Your task to perform on an android device: turn pop-ups on in chrome Image 0: 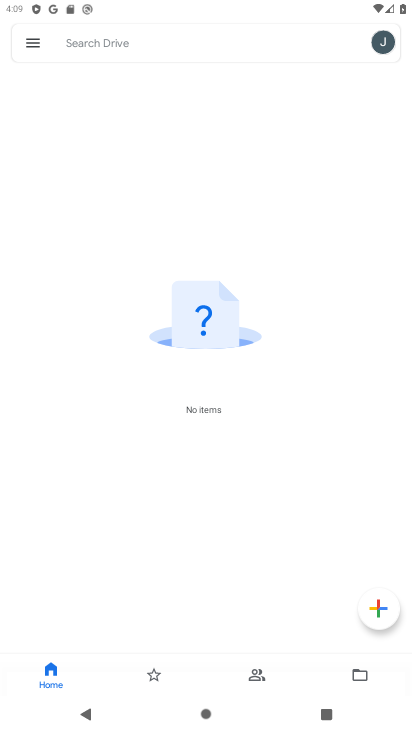
Step 0: press home button
Your task to perform on an android device: turn pop-ups on in chrome Image 1: 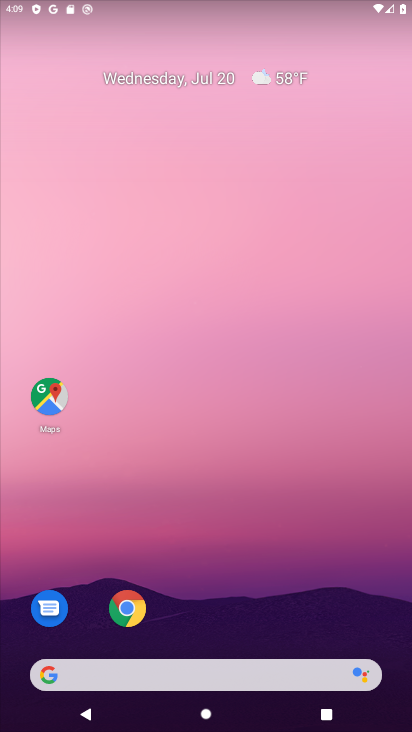
Step 1: click (129, 601)
Your task to perform on an android device: turn pop-ups on in chrome Image 2: 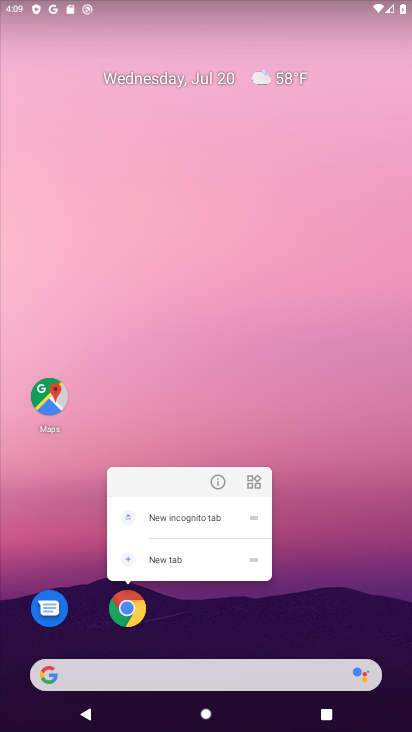
Step 2: click (138, 617)
Your task to perform on an android device: turn pop-ups on in chrome Image 3: 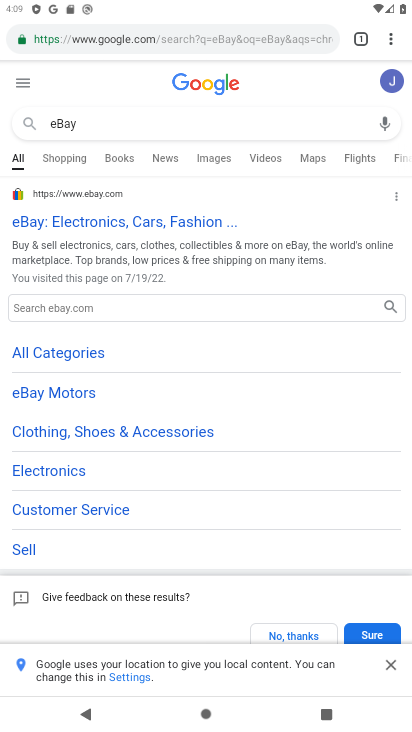
Step 3: click (388, 41)
Your task to perform on an android device: turn pop-ups on in chrome Image 4: 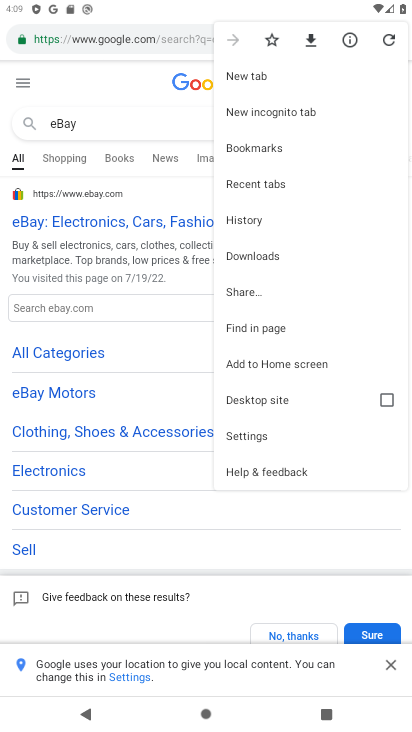
Step 4: click (257, 437)
Your task to perform on an android device: turn pop-ups on in chrome Image 5: 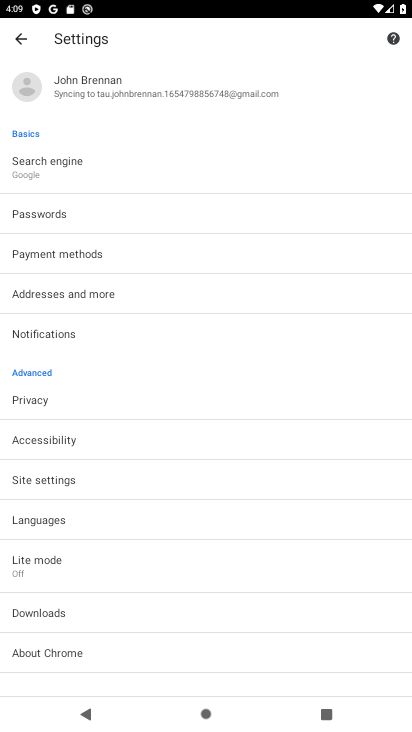
Step 5: click (47, 495)
Your task to perform on an android device: turn pop-ups on in chrome Image 6: 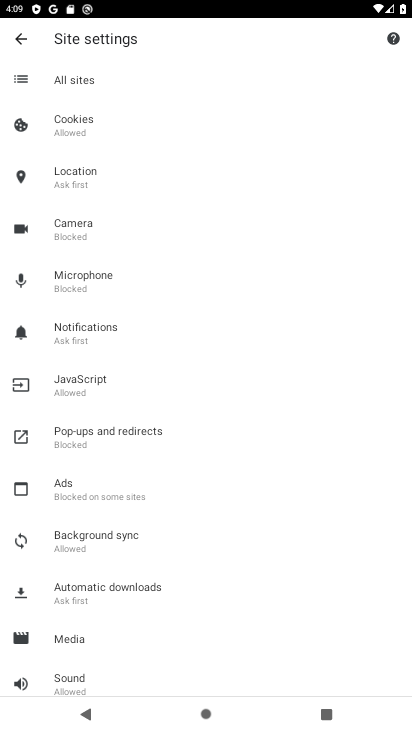
Step 6: click (89, 439)
Your task to perform on an android device: turn pop-ups on in chrome Image 7: 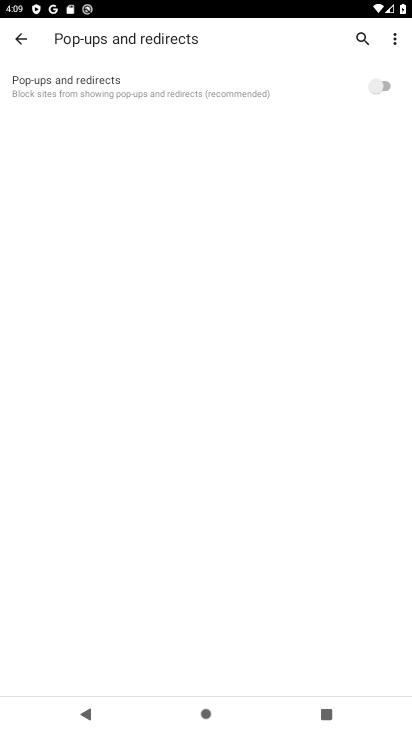
Step 7: click (391, 86)
Your task to perform on an android device: turn pop-ups on in chrome Image 8: 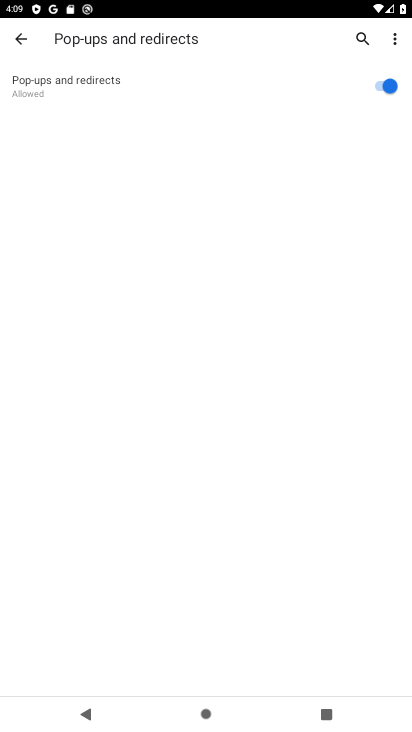
Step 8: task complete